Your task to perform on an android device: What's the latest video from GameSpot News? Image 0: 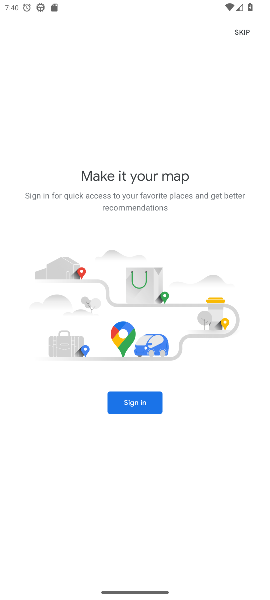
Step 0: press home button
Your task to perform on an android device: What's the latest video from GameSpot News? Image 1: 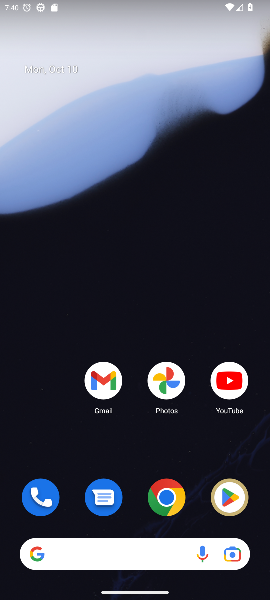
Step 1: click (148, 191)
Your task to perform on an android device: What's the latest video from GameSpot News? Image 2: 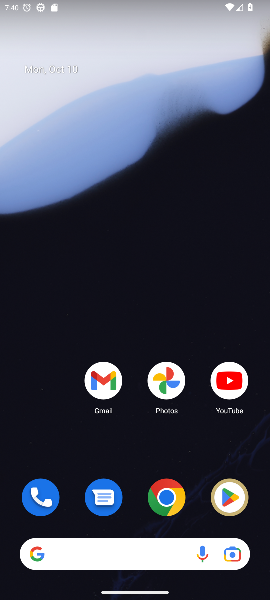
Step 2: drag from (119, 442) to (150, 196)
Your task to perform on an android device: What's the latest video from GameSpot News? Image 3: 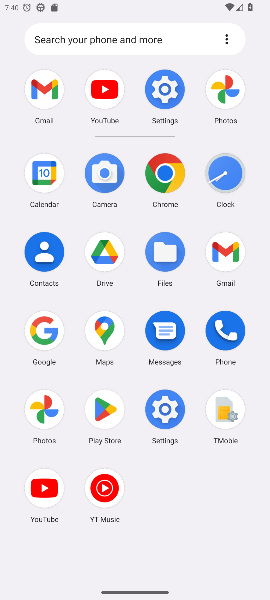
Step 3: click (46, 328)
Your task to perform on an android device: What's the latest video from GameSpot News? Image 4: 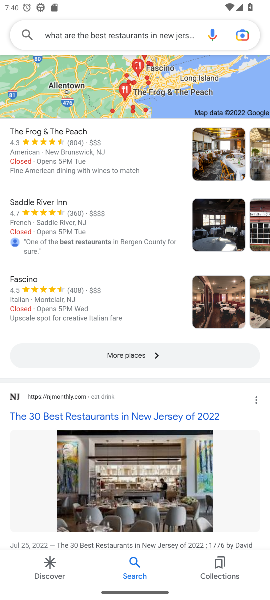
Step 4: click (184, 31)
Your task to perform on an android device: What's the latest video from GameSpot News? Image 5: 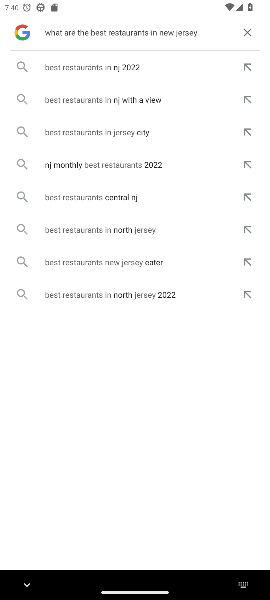
Step 5: click (248, 27)
Your task to perform on an android device: What's the latest video from GameSpot News? Image 6: 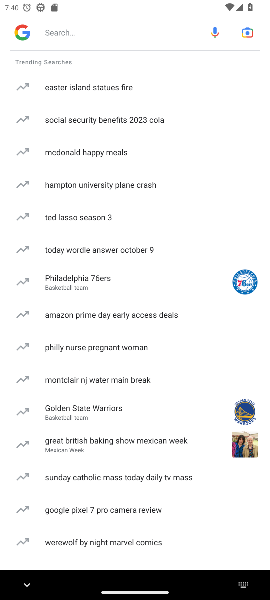
Step 6: click (114, 31)
Your task to perform on an android device: What's the latest video from GameSpot News? Image 7: 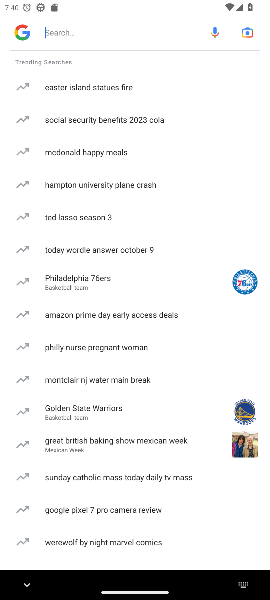
Step 7: type "What's the latest video from GameSpot News? "
Your task to perform on an android device: What's the latest video from GameSpot News? Image 8: 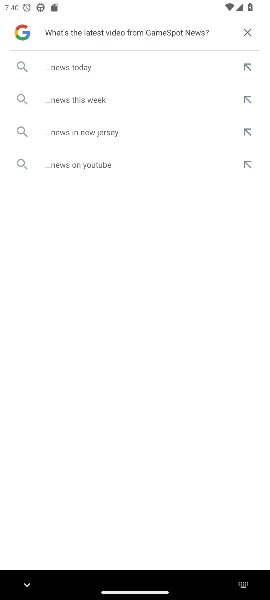
Step 8: click (110, 64)
Your task to perform on an android device: What's the latest video from GameSpot News? Image 9: 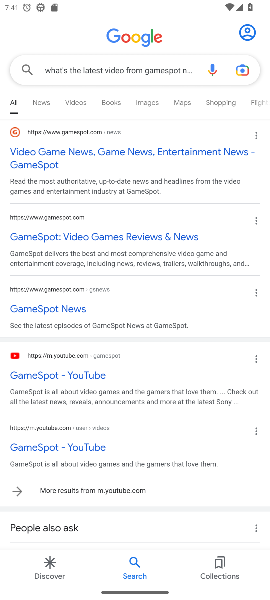
Step 9: click (108, 150)
Your task to perform on an android device: What's the latest video from GameSpot News? Image 10: 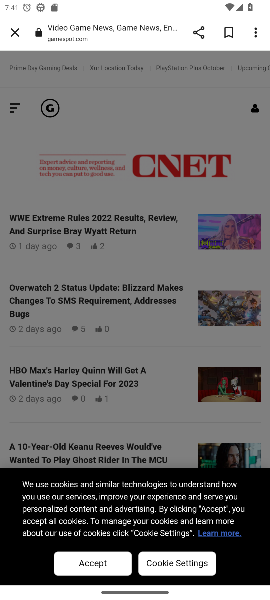
Step 10: click (94, 573)
Your task to perform on an android device: What's the latest video from GameSpot News? Image 11: 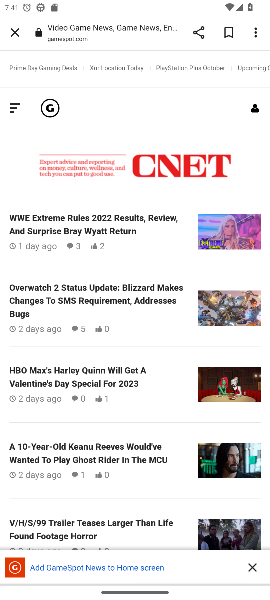
Step 11: click (253, 572)
Your task to perform on an android device: What's the latest video from GameSpot News? Image 12: 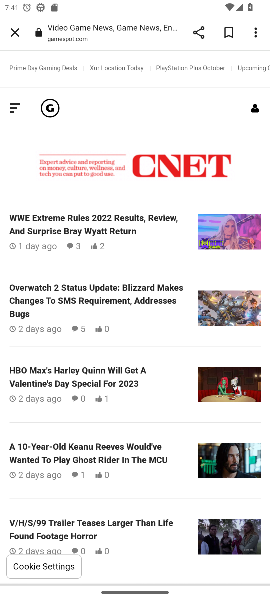
Step 12: click (97, 540)
Your task to perform on an android device: What's the latest video from GameSpot News? Image 13: 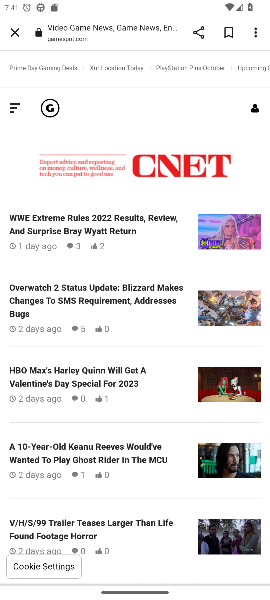
Step 13: click (12, 34)
Your task to perform on an android device: What's the latest video from GameSpot News? Image 14: 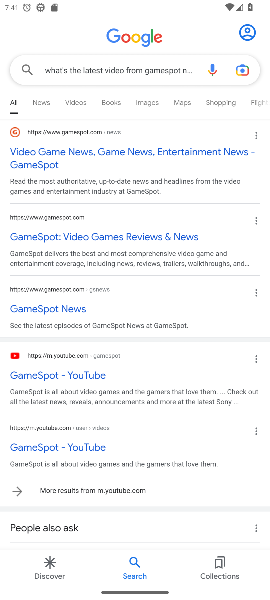
Step 14: click (93, 234)
Your task to perform on an android device: What's the latest video from GameSpot News? Image 15: 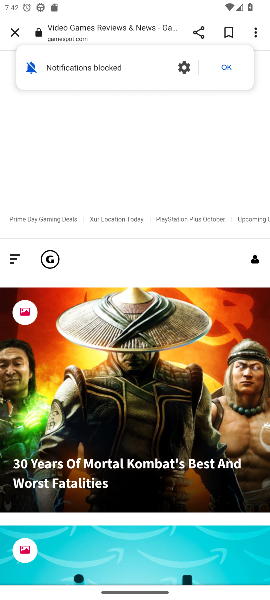
Step 15: task complete